Your task to perform on an android device: Open Google Maps Image 0: 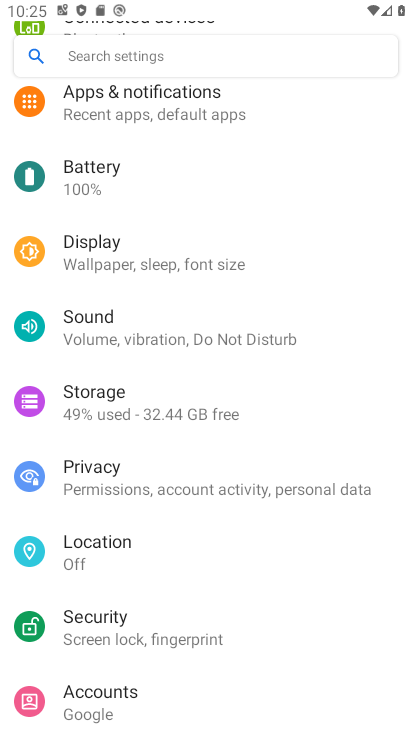
Step 0: press home button
Your task to perform on an android device: Open Google Maps Image 1: 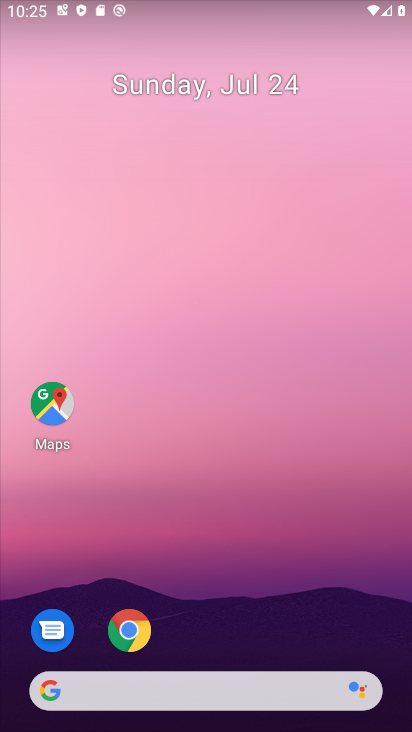
Step 1: click (47, 410)
Your task to perform on an android device: Open Google Maps Image 2: 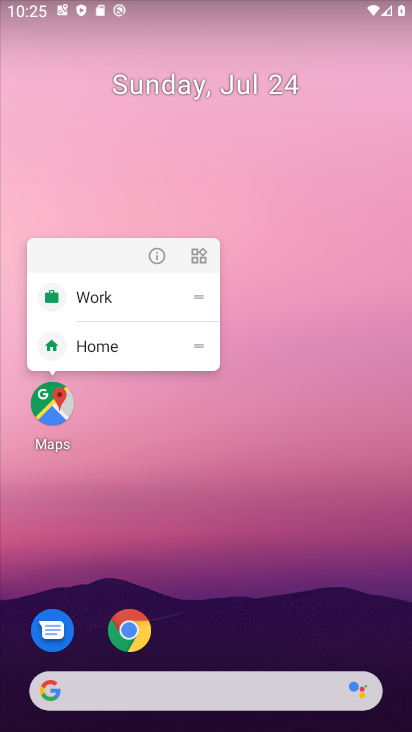
Step 2: click (46, 410)
Your task to perform on an android device: Open Google Maps Image 3: 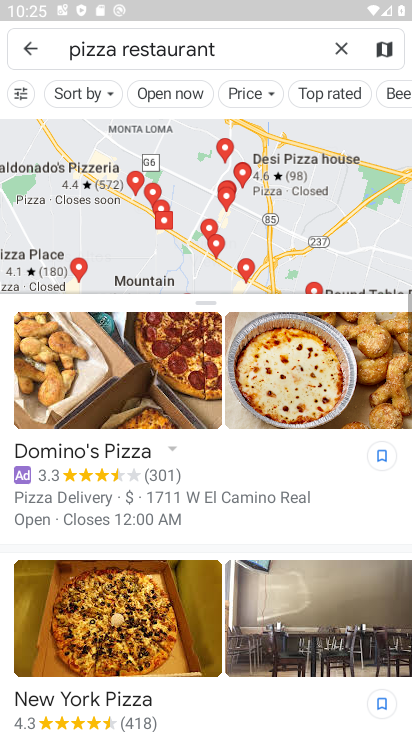
Step 3: task complete